Your task to perform on an android device: allow notifications from all sites in the chrome app Image 0: 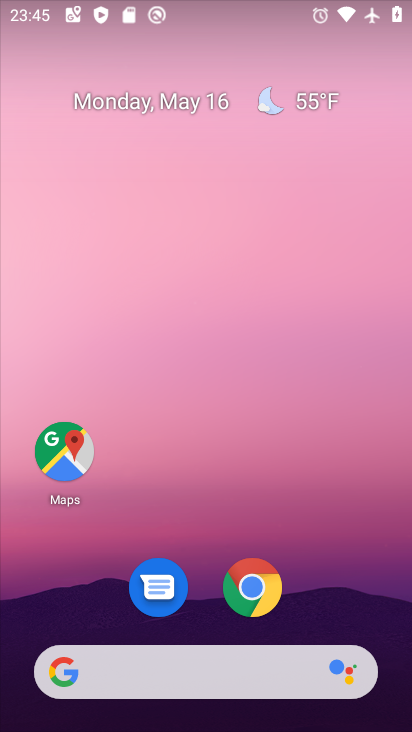
Step 0: drag from (325, 515) to (240, 8)
Your task to perform on an android device: allow notifications from all sites in the chrome app Image 1: 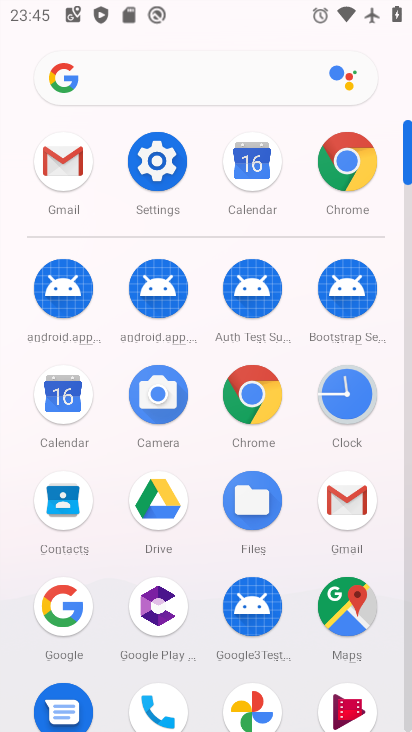
Step 1: drag from (6, 582) to (11, 324)
Your task to perform on an android device: allow notifications from all sites in the chrome app Image 2: 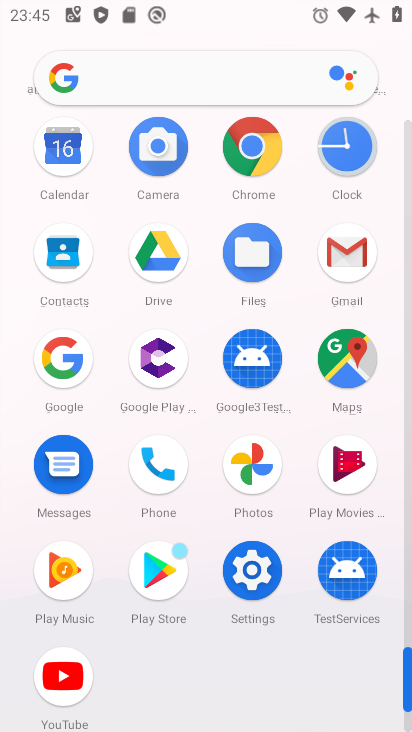
Step 2: click (252, 138)
Your task to perform on an android device: allow notifications from all sites in the chrome app Image 3: 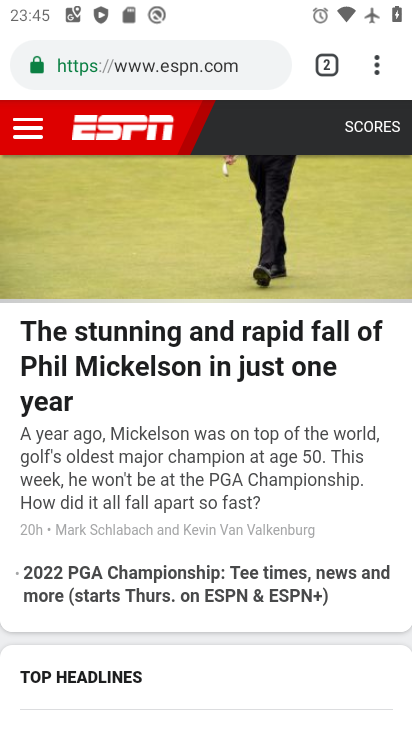
Step 3: drag from (373, 66) to (146, 630)
Your task to perform on an android device: allow notifications from all sites in the chrome app Image 4: 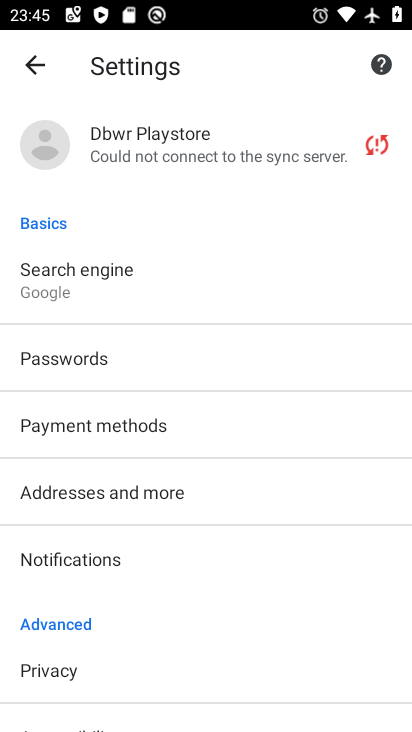
Step 4: drag from (141, 629) to (149, 238)
Your task to perform on an android device: allow notifications from all sites in the chrome app Image 5: 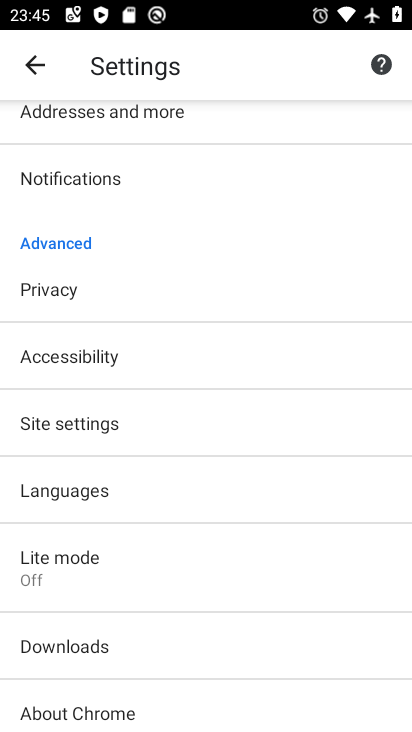
Step 5: drag from (163, 216) to (161, 376)
Your task to perform on an android device: allow notifications from all sites in the chrome app Image 6: 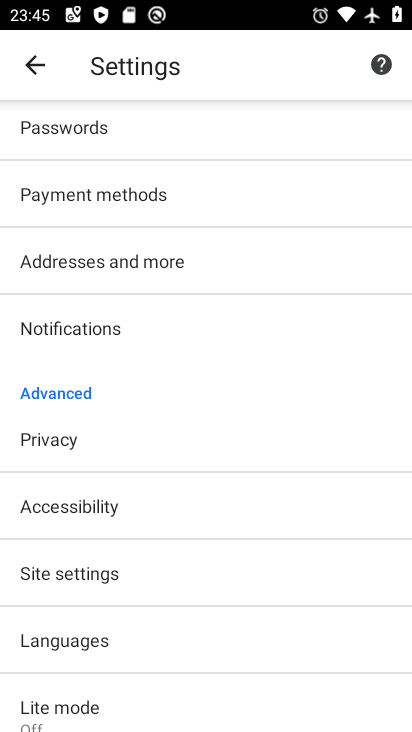
Step 6: click (112, 331)
Your task to perform on an android device: allow notifications from all sites in the chrome app Image 7: 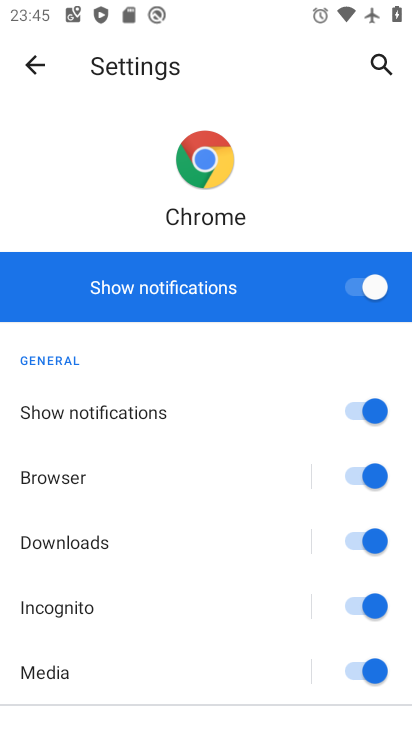
Step 7: click (28, 60)
Your task to perform on an android device: allow notifications from all sites in the chrome app Image 8: 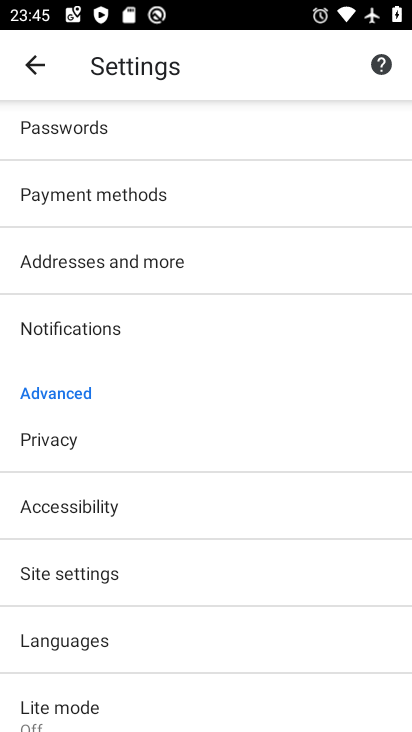
Step 8: click (98, 567)
Your task to perform on an android device: allow notifications from all sites in the chrome app Image 9: 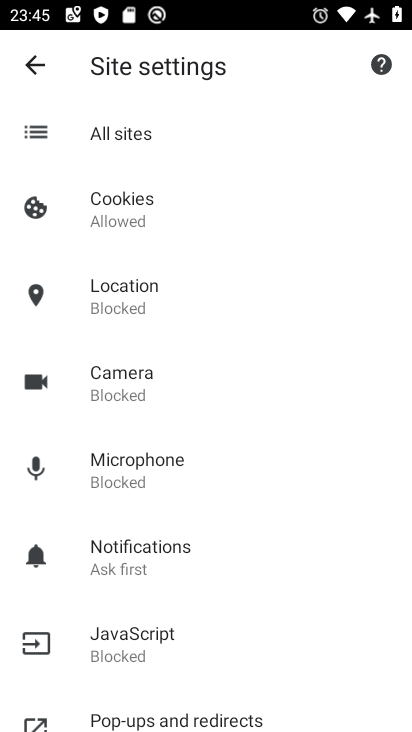
Step 9: click (166, 552)
Your task to perform on an android device: allow notifications from all sites in the chrome app Image 10: 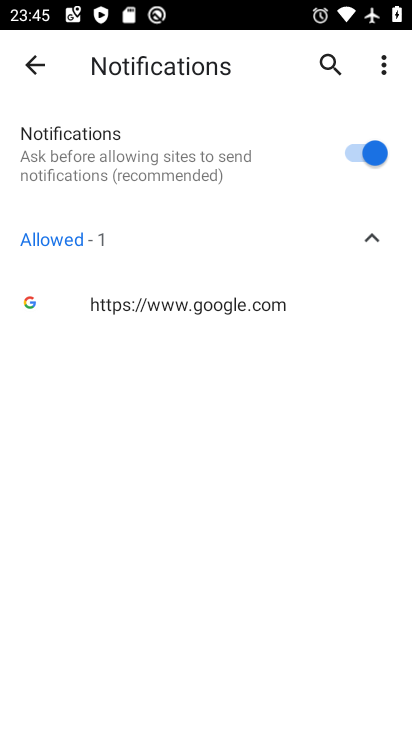
Step 10: task complete